Your task to perform on an android device: Show me popular videos on Youtube Image 0: 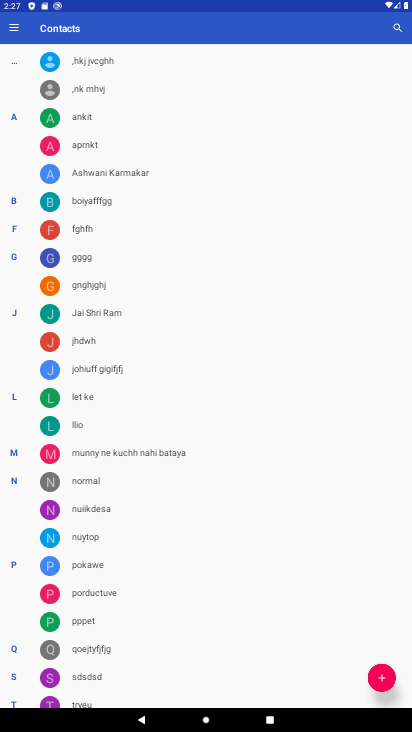
Step 0: press home button
Your task to perform on an android device: Show me popular videos on Youtube Image 1: 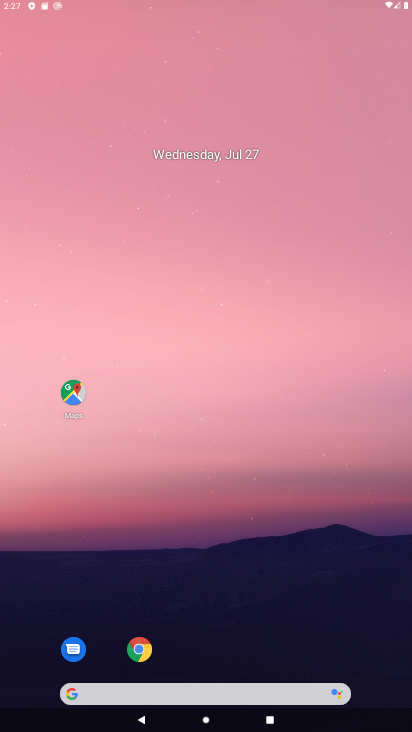
Step 1: drag from (367, 648) to (32, 1)
Your task to perform on an android device: Show me popular videos on Youtube Image 2: 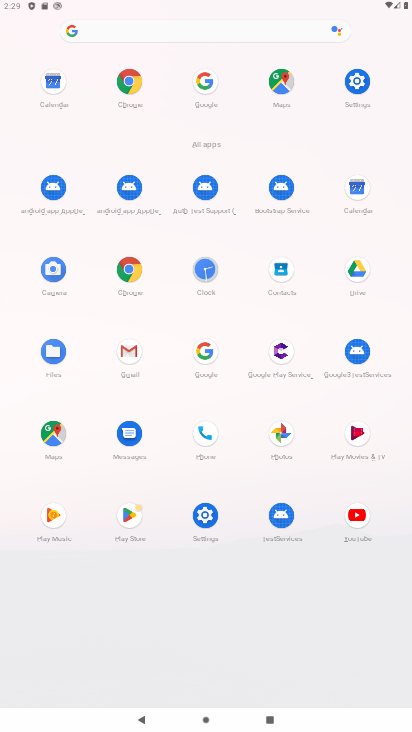
Step 2: click (351, 514)
Your task to perform on an android device: Show me popular videos on Youtube Image 3: 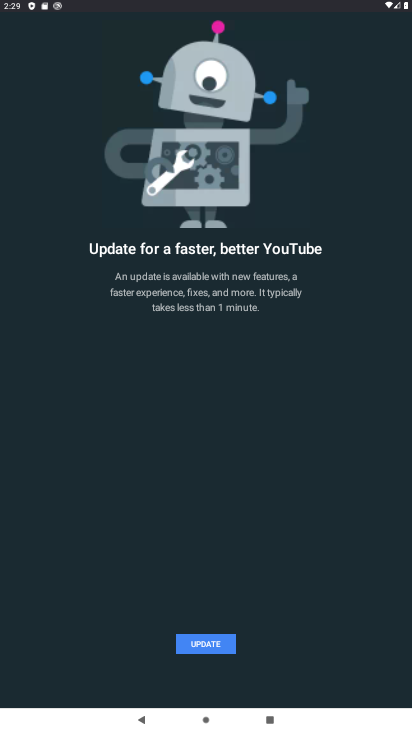
Step 3: task complete